Your task to perform on an android device: turn off javascript in the chrome app Image 0: 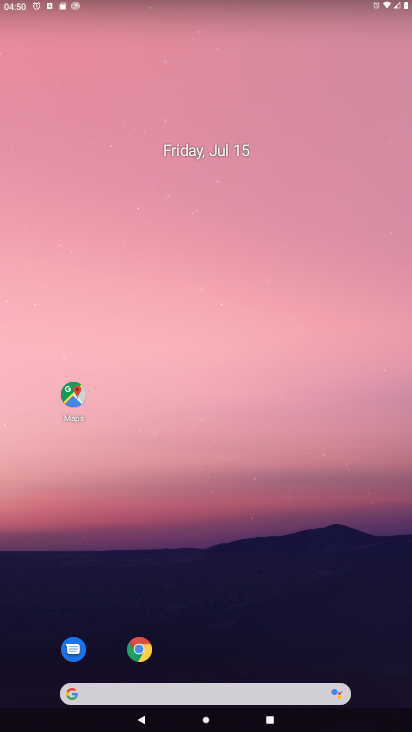
Step 0: click (139, 653)
Your task to perform on an android device: turn off javascript in the chrome app Image 1: 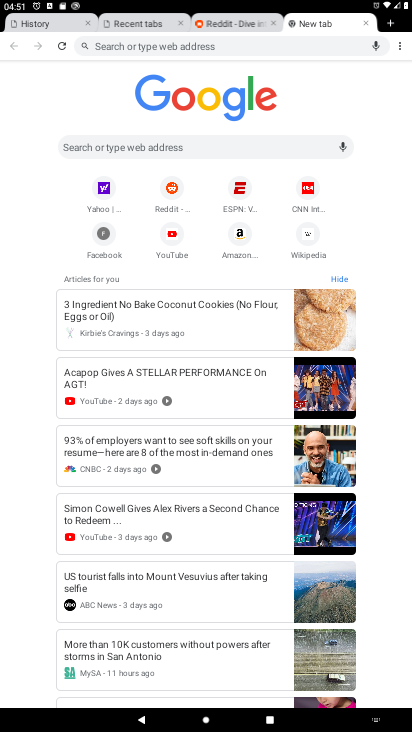
Step 1: click (400, 49)
Your task to perform on an android device: turn off javascript in the chrome app Image 2: 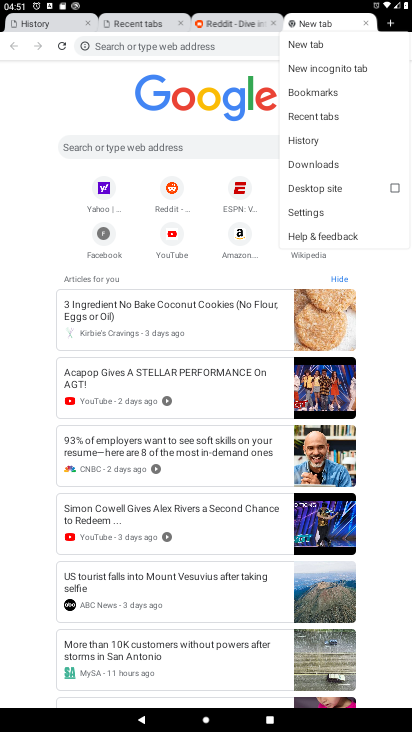
Step 2: click (312, 210)
Your task to perform on an android device: turn off javascript in the chrome app Image 3: 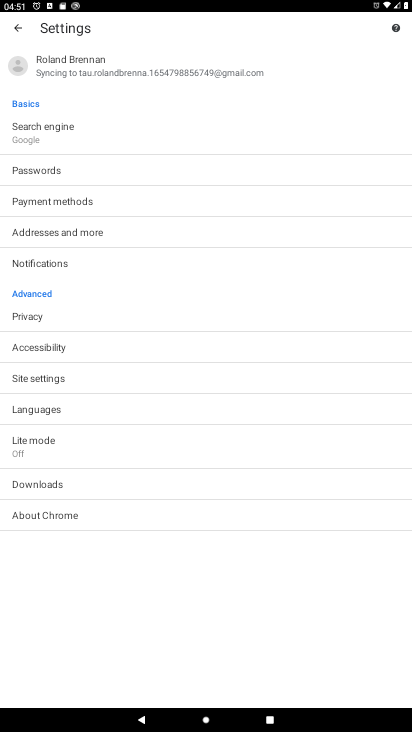
Step 3: click (39, 379)
Your task to perform on an android device: turn off javascript in the chrome app Image 4: 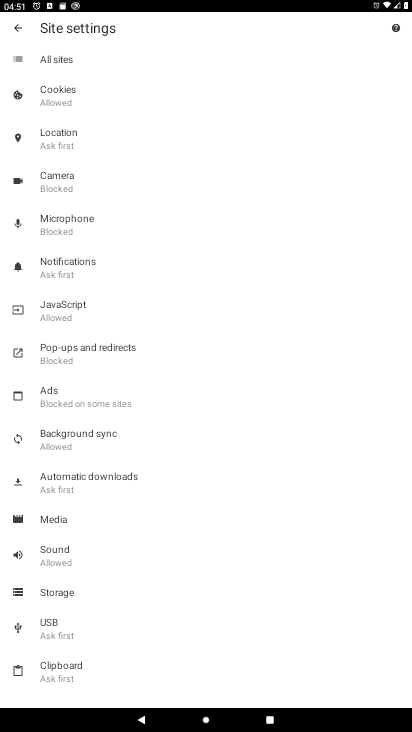
Step 4: click (64, 306)
Your task to perform on an android device: turn off javascript in the chrome app Image 5: 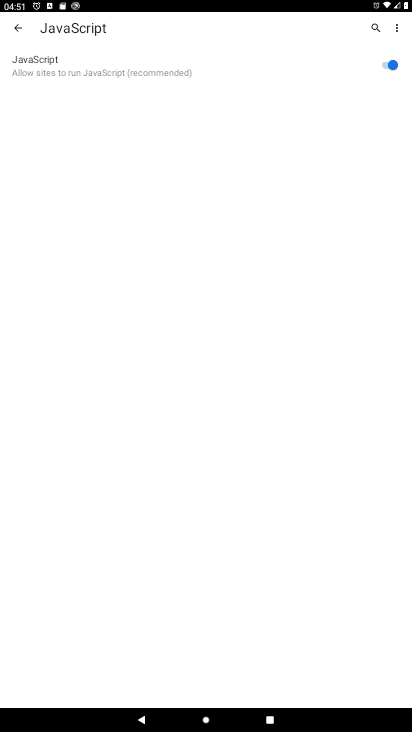
Step 5: click (383, 66)
Your task to perform on an android device: turn off javascript in the chrome app Image 6: 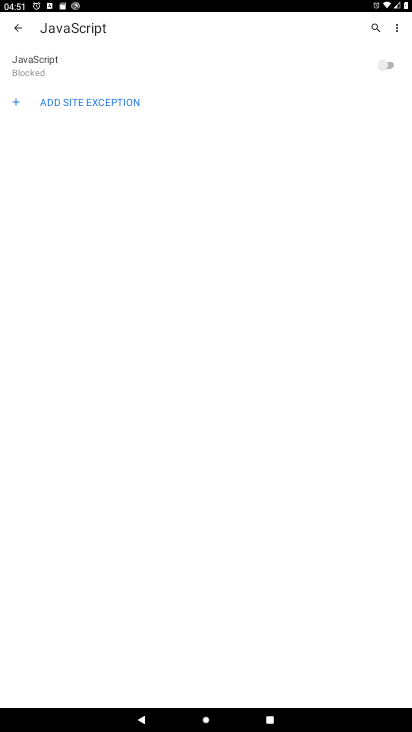
Step 6: task complete